Your task to perform on an android device: turn pop-ups on in chrome Image 0: 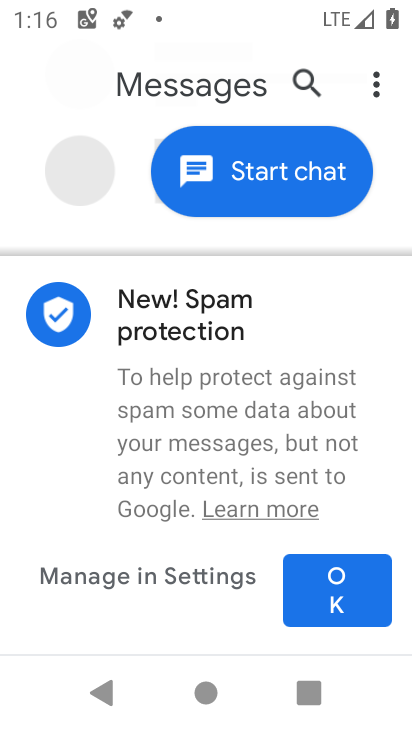
Step 0: press home button
Your task to perform on an android device: turn pop-ups on in chrome Image 1: 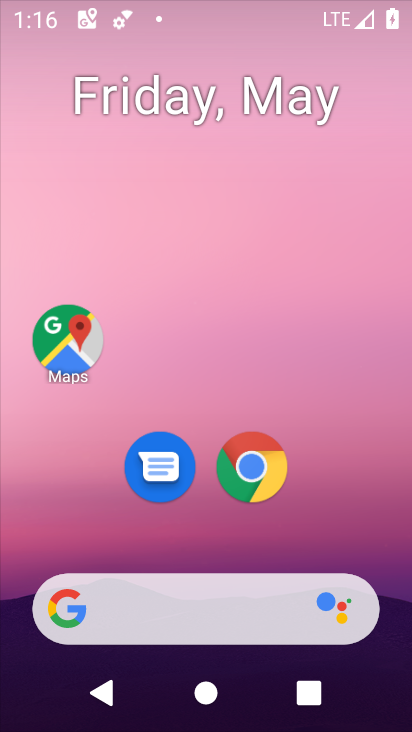
Step 1: drag from (350, 520) to (387, 3)
Your task to perform on an android device: turn pop-ups on in chrome Image 2: 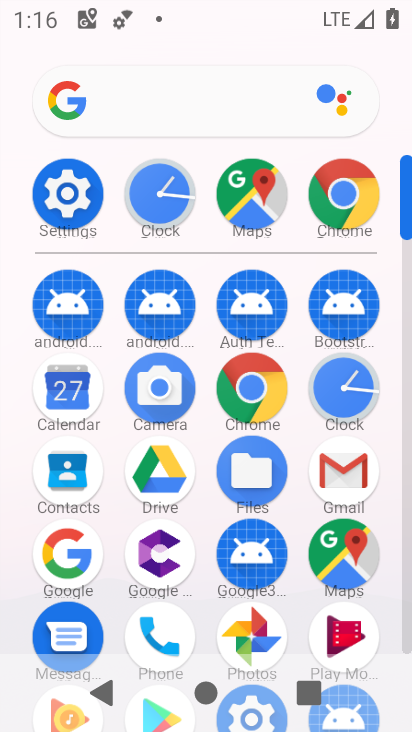
Step 2: click (327, 189)
Your task to perform on an android device: turn pop-ups on in chrome Image 3: 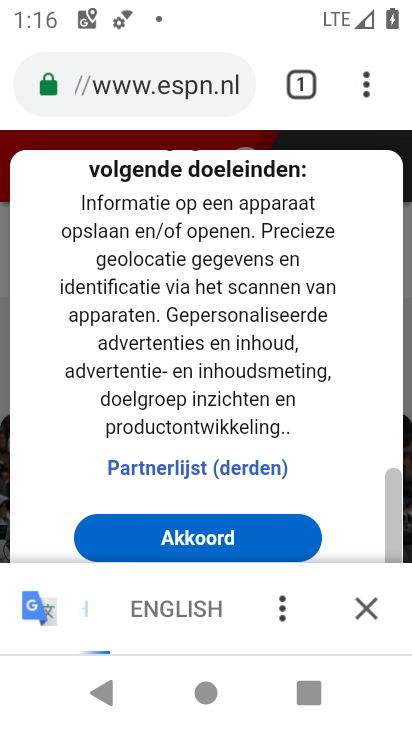
Step 3: drag from (380, 63) to (163, 532)
Your task to perform on an android device: turn pop-ups on in chrome Image 4: 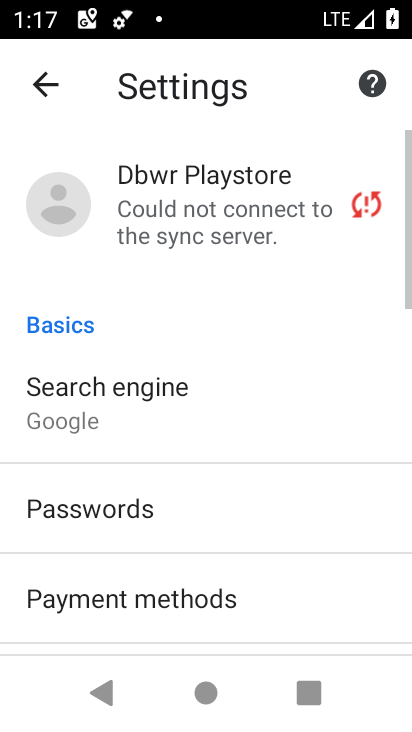
Step 4: drag from (196, 581) to (281, 164)
Your task to perform on an android device: turn pop-ups on in chrome Image 5: 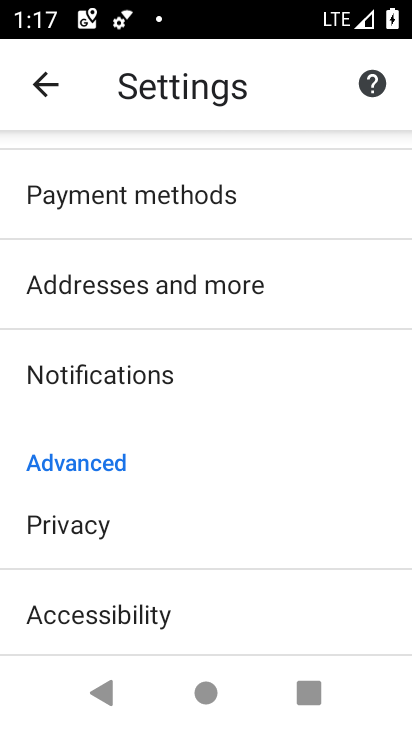
Step 5: drag from (219, 561) to (289, 119)
Your task to perform on an android device: turn pop-ups on in chrome Image 6: 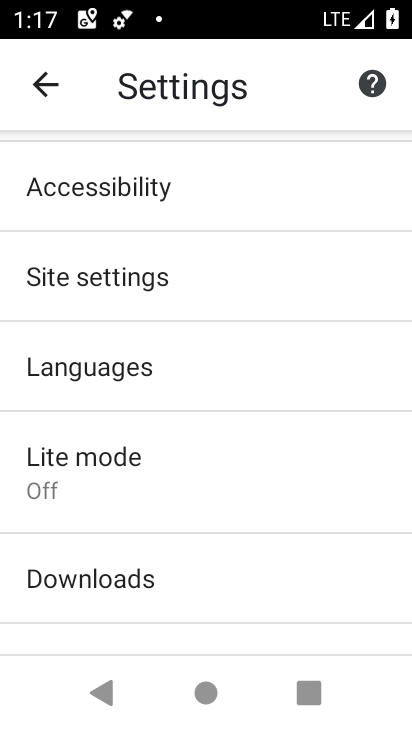
Step 6: click (118, 293)
Your task to perform on an android device: turn pop-ups on in chrome Image 7: 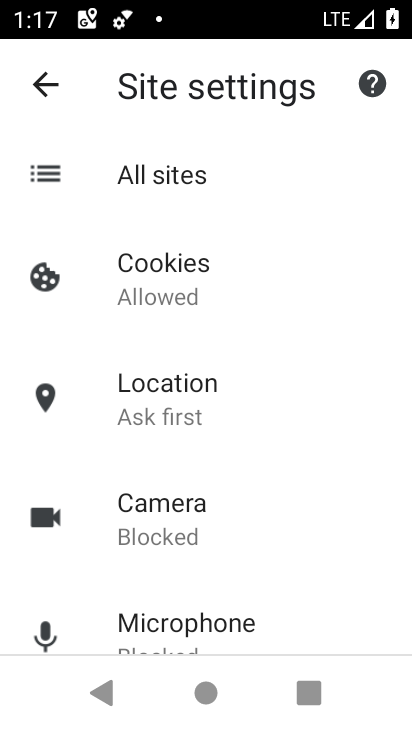
Step 7: drag from (222, 557) to (301, 121)
Your task to perform on an android device: turn pop-ups on in chrome Image 8: 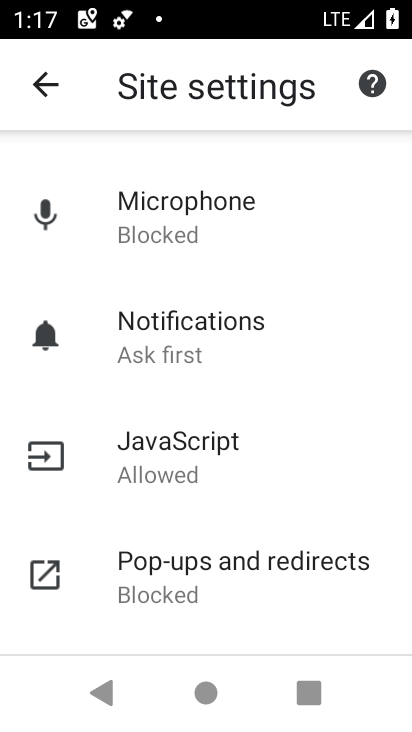
Step 8: drag from (259, 576) to (303, 193)
Your task to perform on an android device: turn pop-ups on in chrome Image 9: 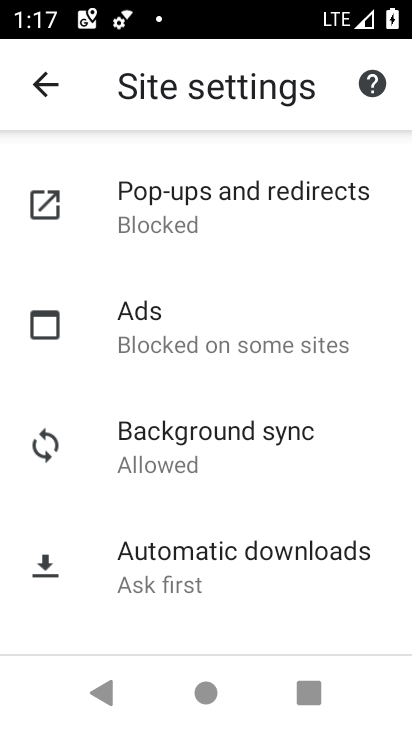
Step 9: click (279, 210)
Your task to perform on an android device: turn pop-ups on in chrome Image 10: 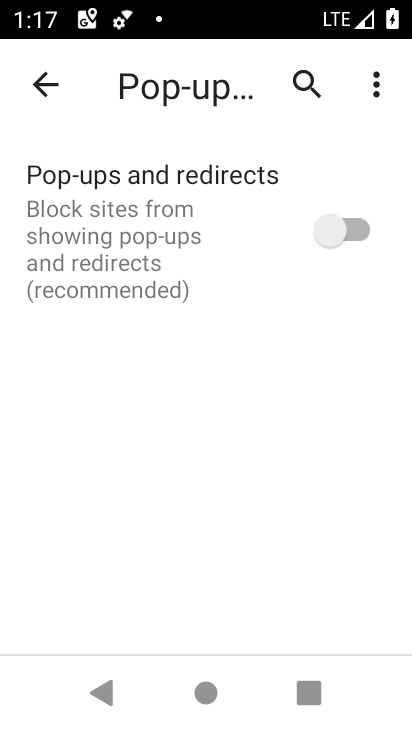
Step 10: click (336, 235)
Your task to perform on an android device: turn pop-ups on in chrome Image 11: 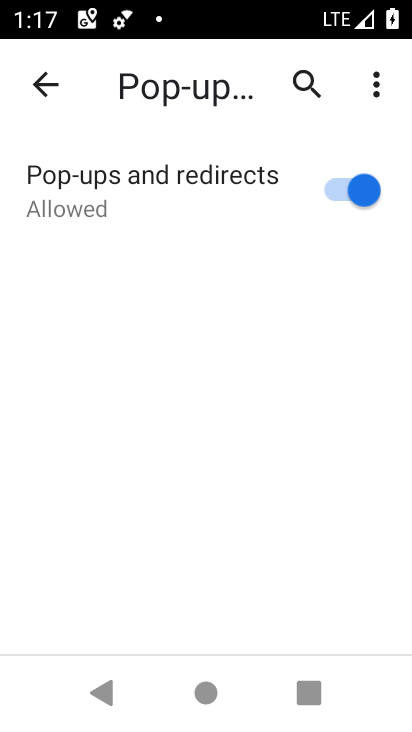
Step 11: task complete